Your task to perform on an android device: Go to privacy settings Image 0: 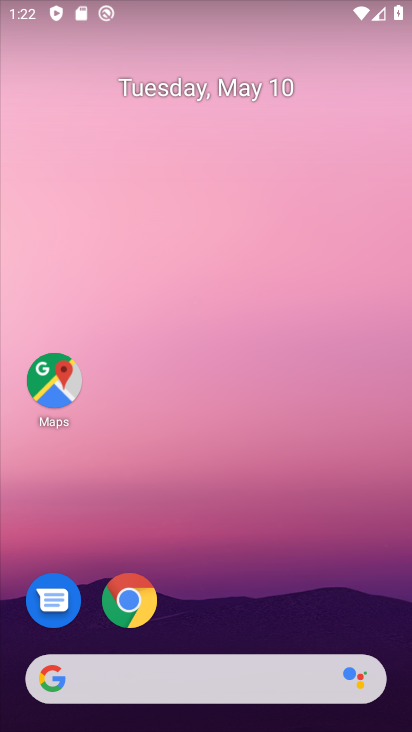
Step 0: drag from (225, 638) to (151, 5)
Your task to perform on an android device: Go to privacy settings Image 1: 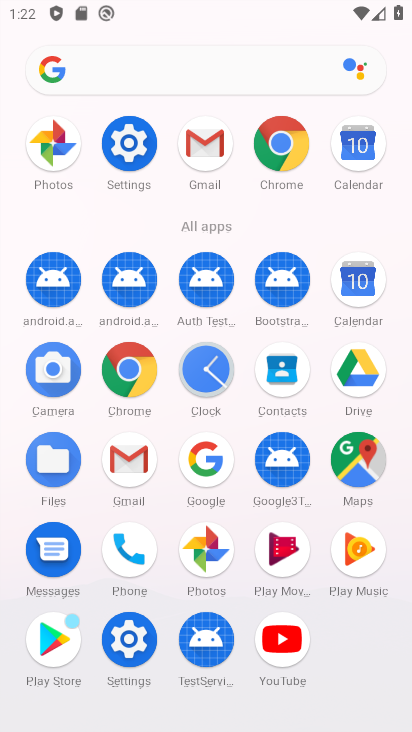
Step 1: click (145, 151)
Your task to perform on an android device: Go to privacy settings Image 2: 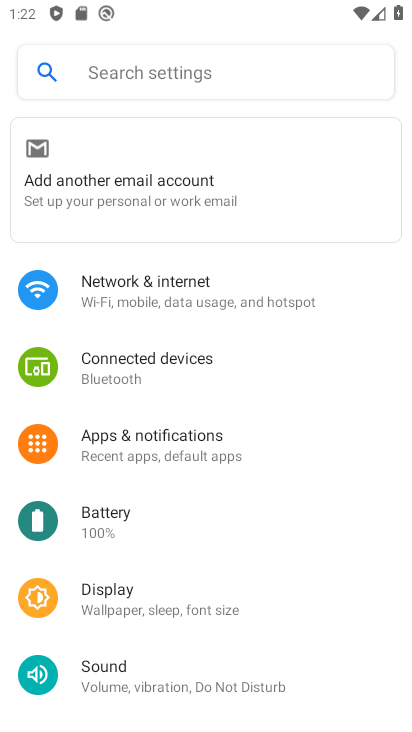
Step 2: drag from (153, 631) to (131, 416)
Your task to perform on an android device: Go to privacy settings Image 3: 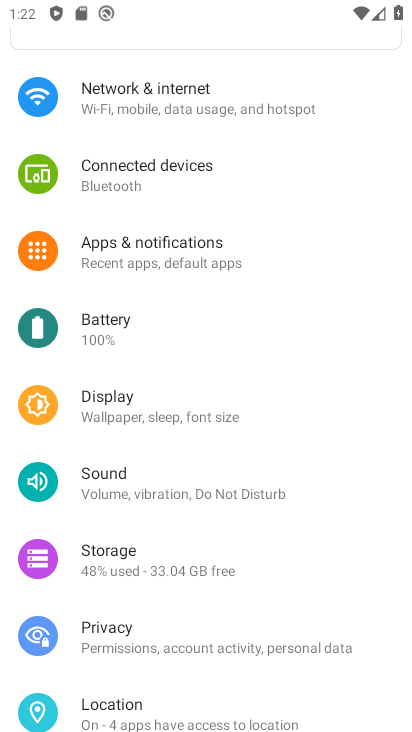
Step 3: click (132, 643)
Your task to perform on an android device: Go to privacy settings Image 4: 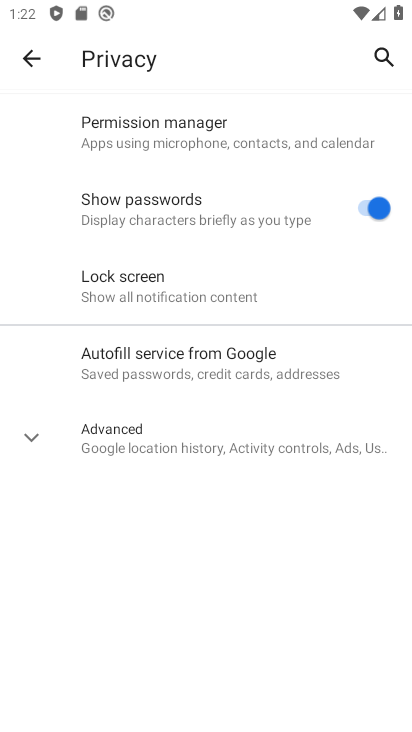
Step 4: click (107, 456)
Your task to perform on an android device: Go to privacy settings Image 5: 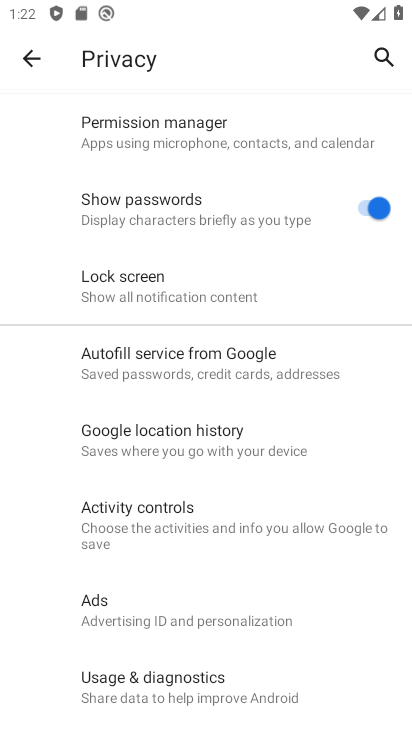
Step 5: task complete